Your task to perform on an android device: Open sound settings Image 0: 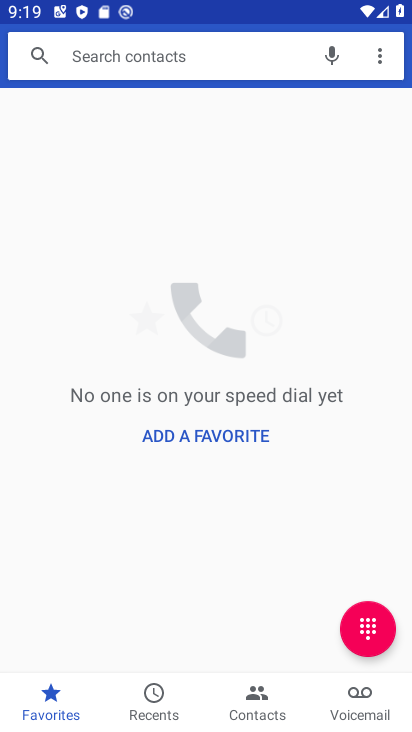
Step 0: press home button
Your task to perform on an android device: Open sound settings Image 1: 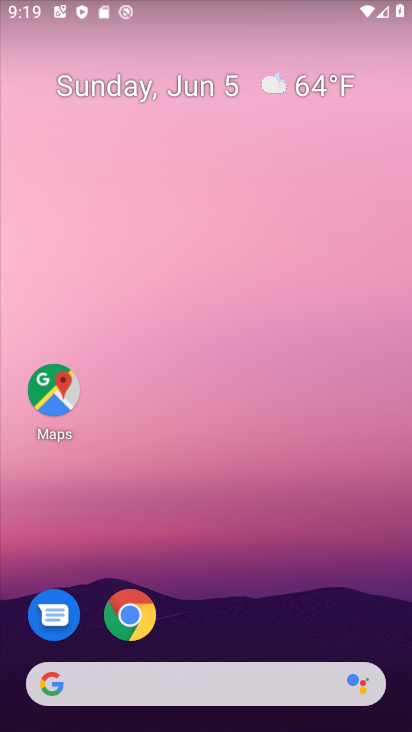
Step 1: drag from (230, 674) to (259, 289)
Your task to perform on an android device: Open sound settings Image 2: 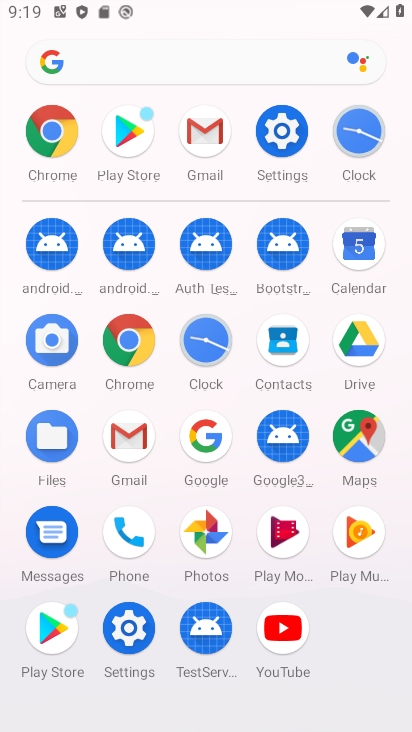
Step 2: click (254, 124)
Your task to perform on an android device: Open sound settings Image 3: 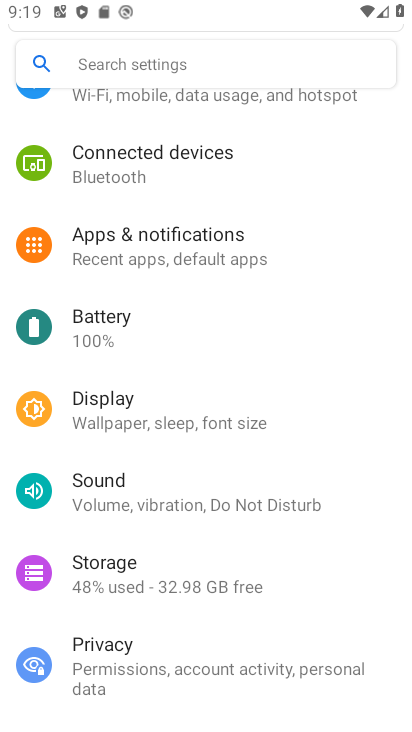
Step 3: click (115, 481)
Your task to perform on an android device: Open sound settings Image 4: 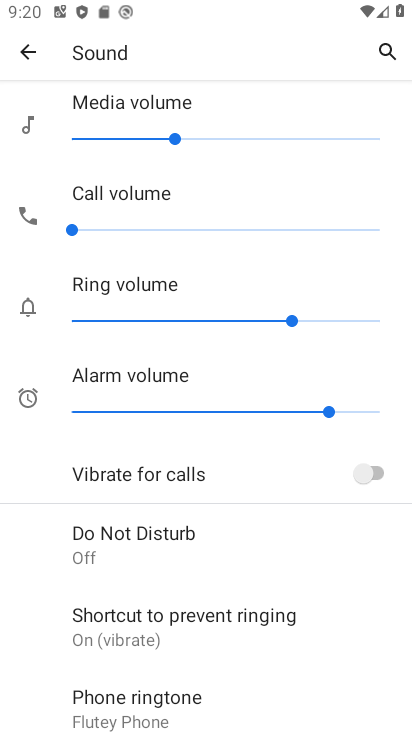
Step 4: task complete